Your task to perform on an android device: What's the weather today? Image 0: 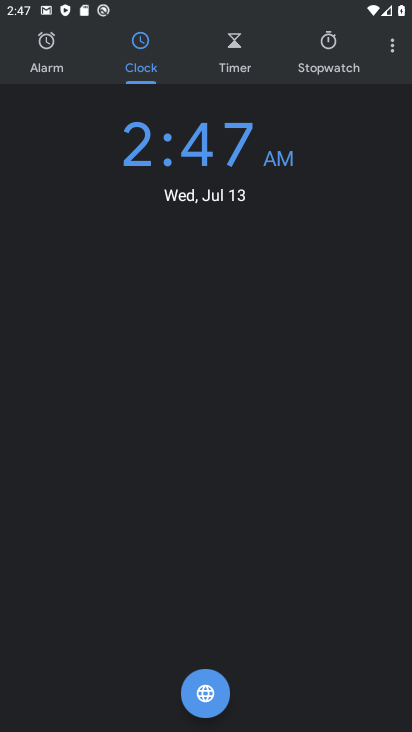
Step 0: press home button
Your task to perform on an android device: What's the weather today? Image 1: 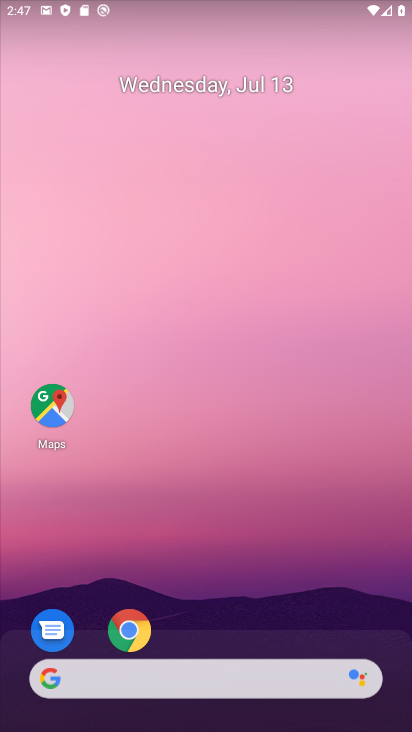
Step 1: click (170, 690)
Your task to perform on an android device: What's the weather today? Image 2: 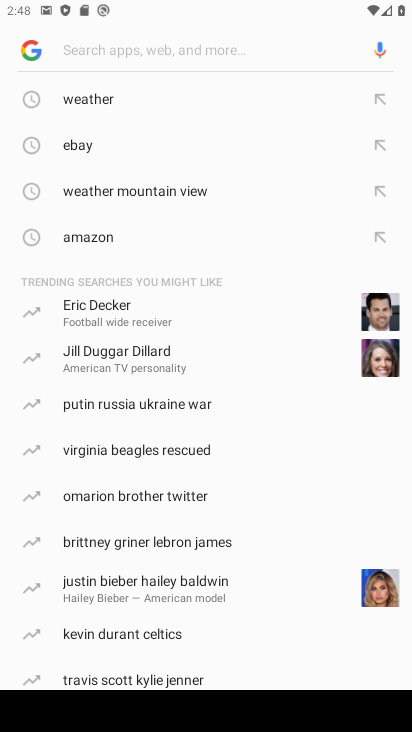
Step 2: type "what's the weather today?"
Your task to perform on an android device: What's the weather today? Image 3: 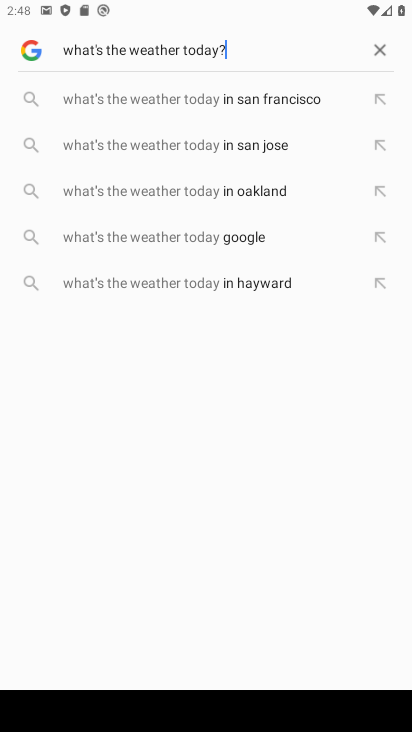
Step 3: click (150, 234)
Your task to perform on an android device: What's the weather today? Image 4: 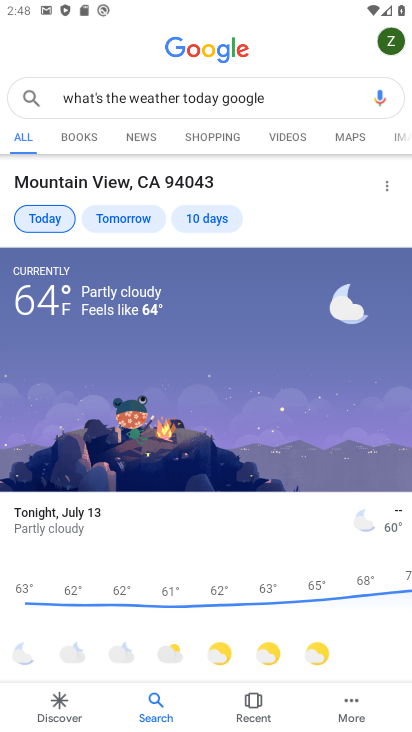
Step 4: task complete